Your task to perform on an android device: Toggle the flashlight Image 0: 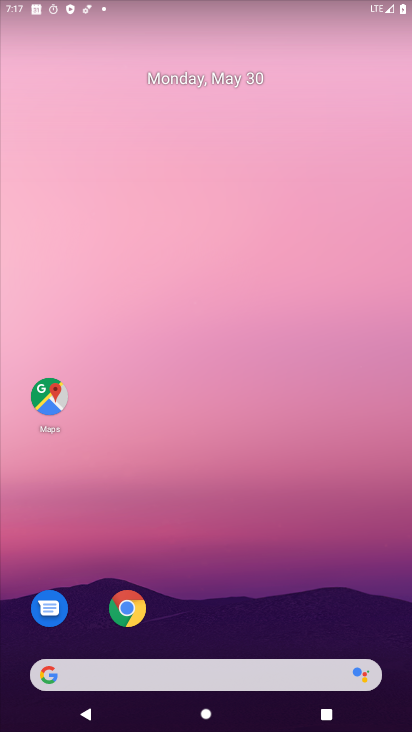
Step 0: drag from (262, 626) to (350, 181)
Your task to perform on an android device: Toggle the flashlight Image 1: 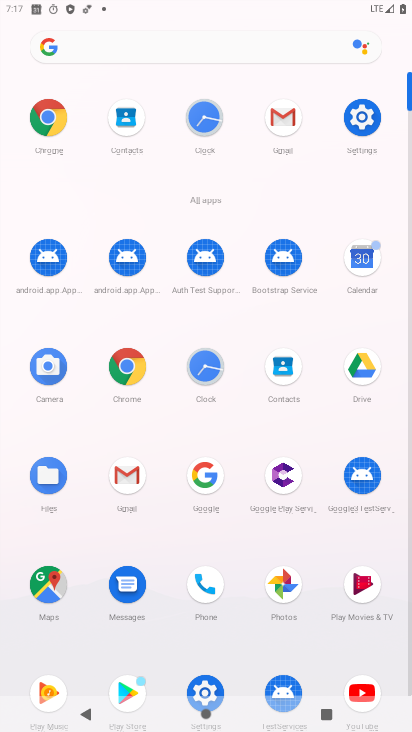
Step 1: click (362, 117)
Your task to perform on an android device: Toggle the flashlight Image 2: 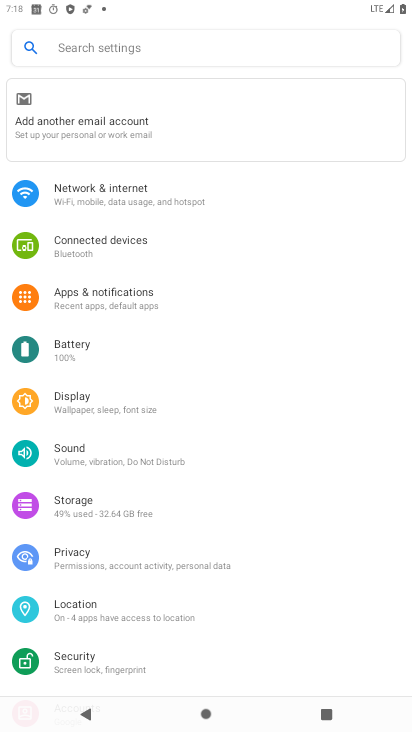
Step 2: click (122, 393)
Your task to perform on an android device: Toggle the flashlight Image 3: 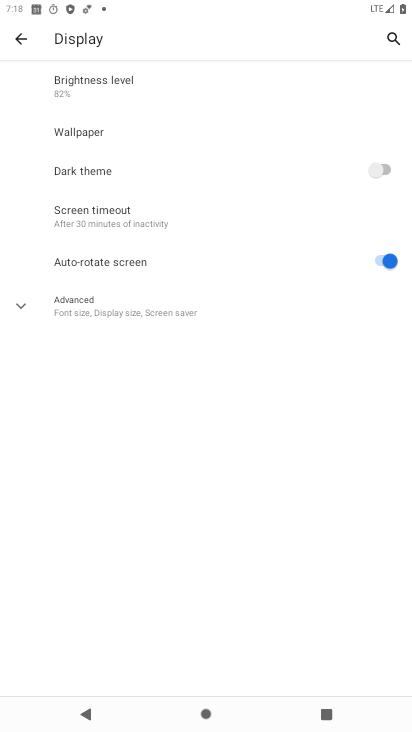
Step 3: task complete